Your task to perform on an android device: open app "LinkedIn" (install if not already installed) and enter user name: "dirt@inbox.com" and password: "receptionist" Image 0: 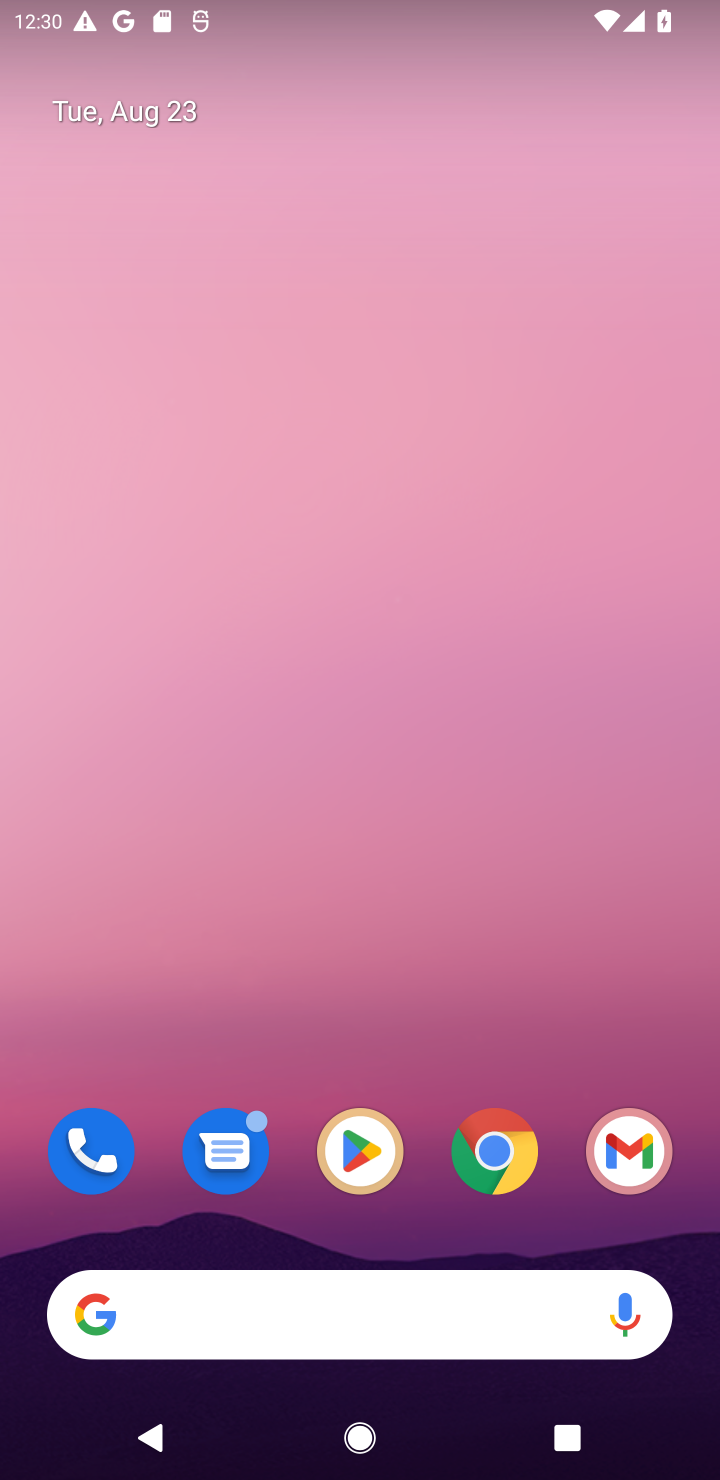
Step 0: click (367, 1150)
Your task to perform on an android device: open app "LinkedIn" (install if not already installed) and enter user name: "dirt@inbox.com" and password: "receptionist" Image 1: 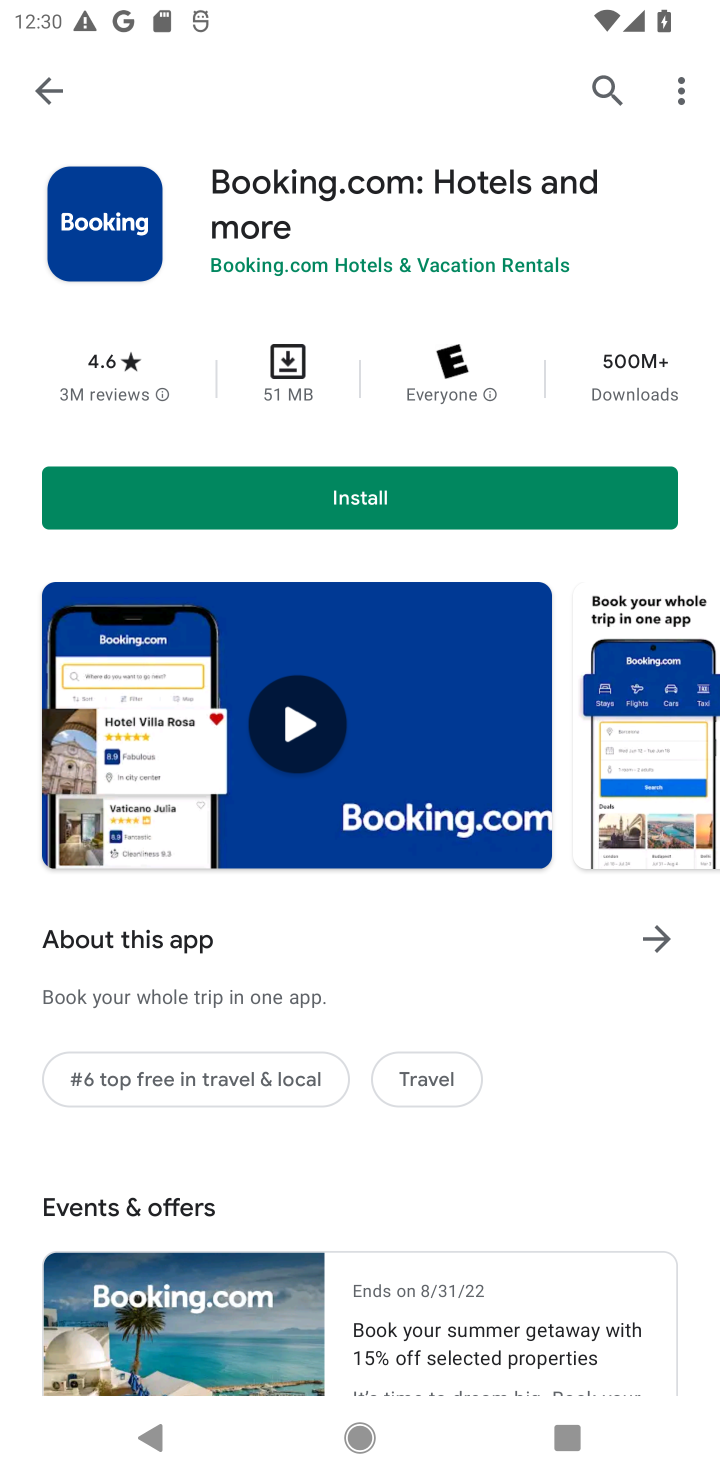
Step 1: click (598, 93)
Your task to perform on an android device: open app "LinkedIn" (install if not already installed) and enter user name: "dirt@inbox.com" and password: "receptionist" Image 2: 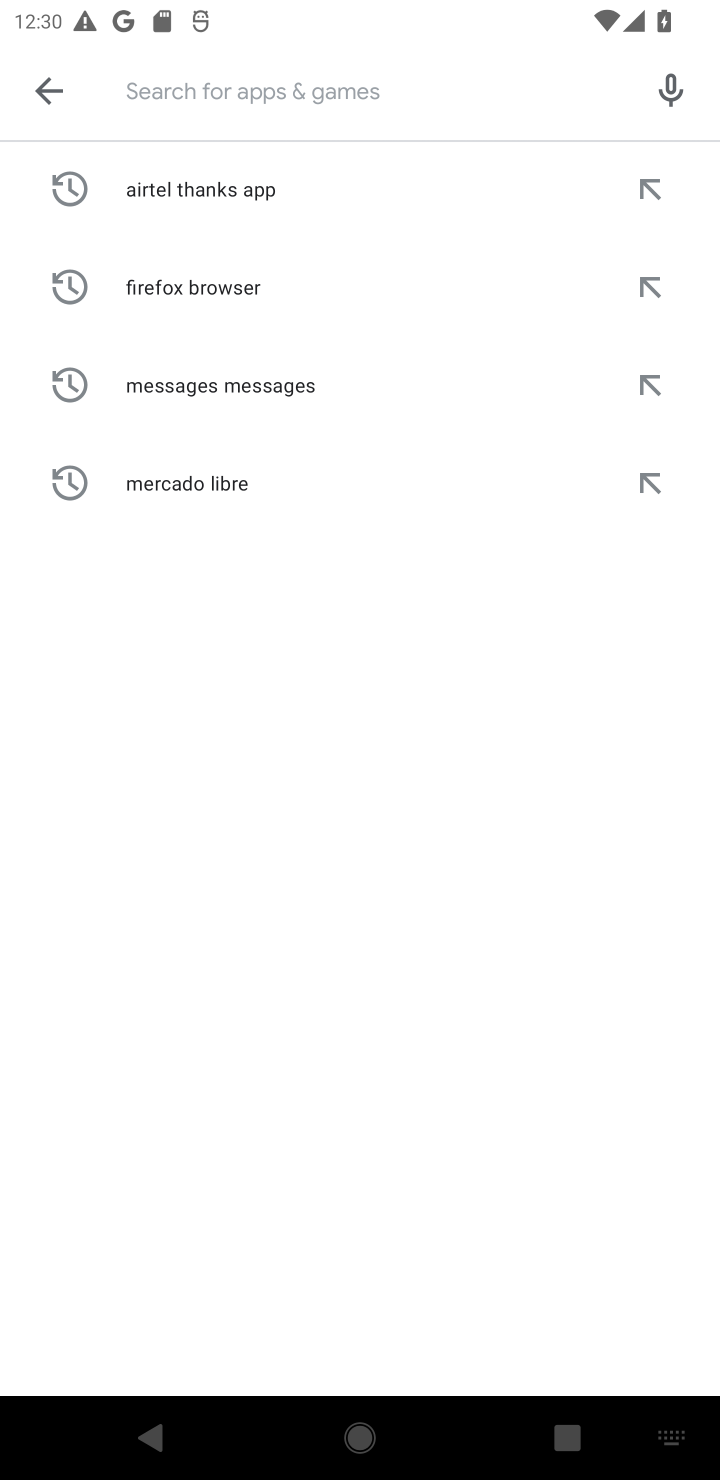
Step 2: type "LinkedIn"
Your task to perform on an android device: open app "LinkedIn" (install if not already installed) and enter user name: "dirt@inbox.com" and password: "receptionist" Image 3: 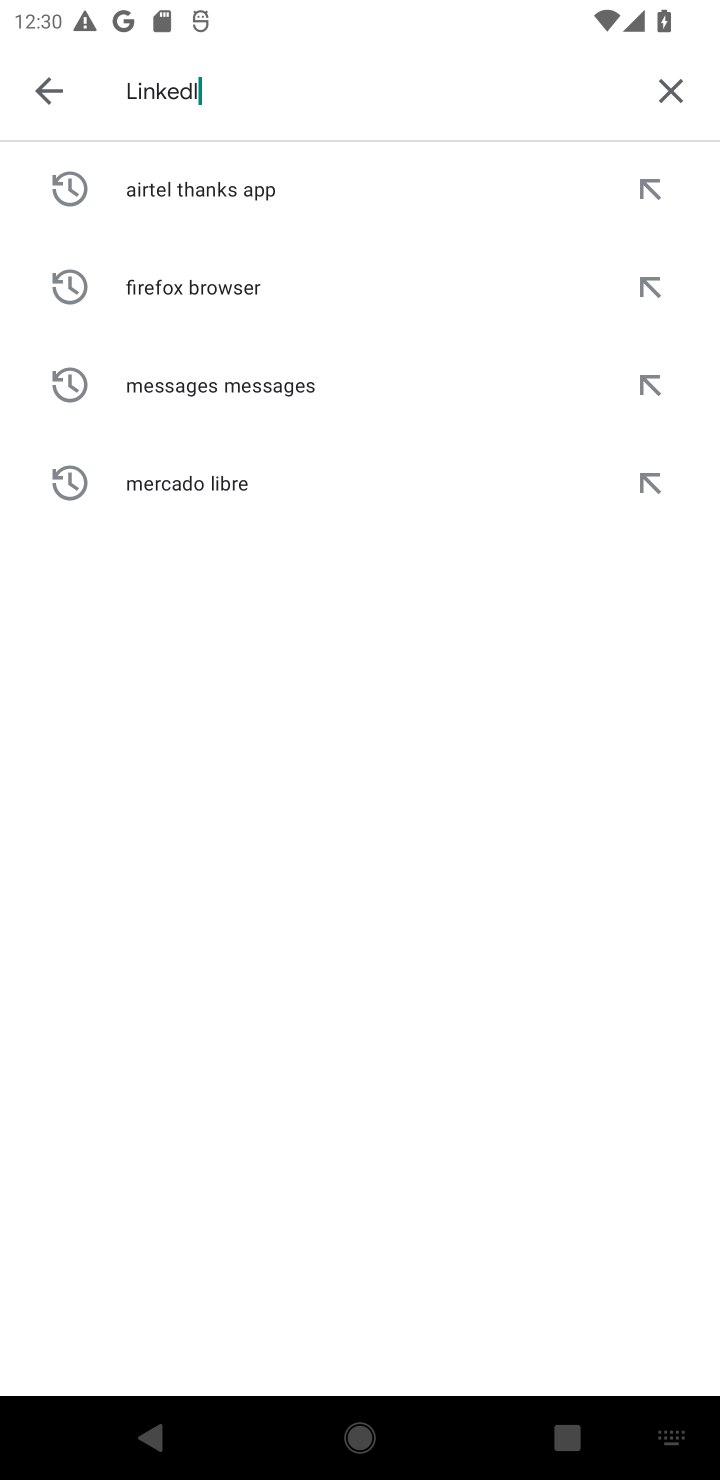
Step 3: type ""
Your task to perform on an android device: open app "LinkedIn" (install if not already installed) and enter user name: "dirt@inbox.com" and password: "receptionist" Image 4: 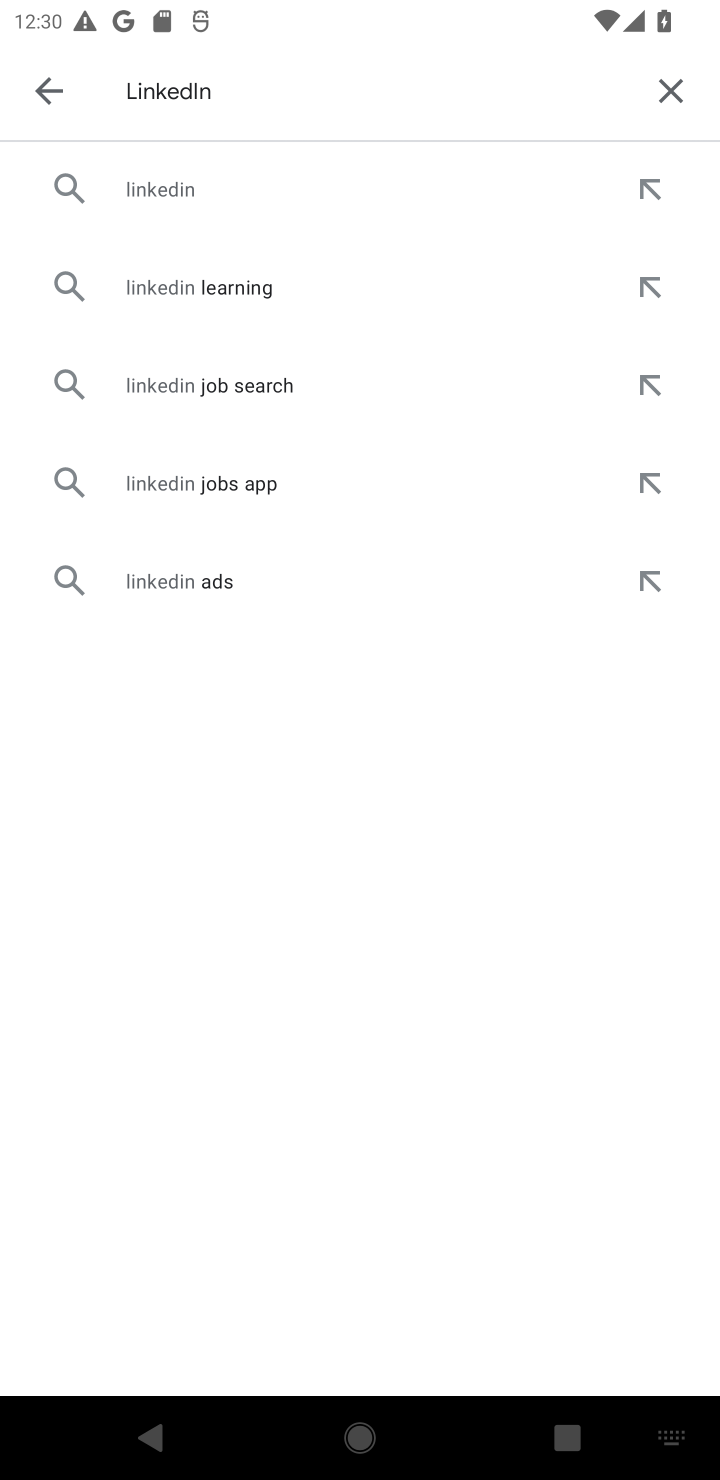
Step 4: click (214, 180)
Your task to perform on an android device: open app "LinkedIn" (install if not already installed) and enter user name: "dirt@inbox.com" and password: "receptionist" Image 5: 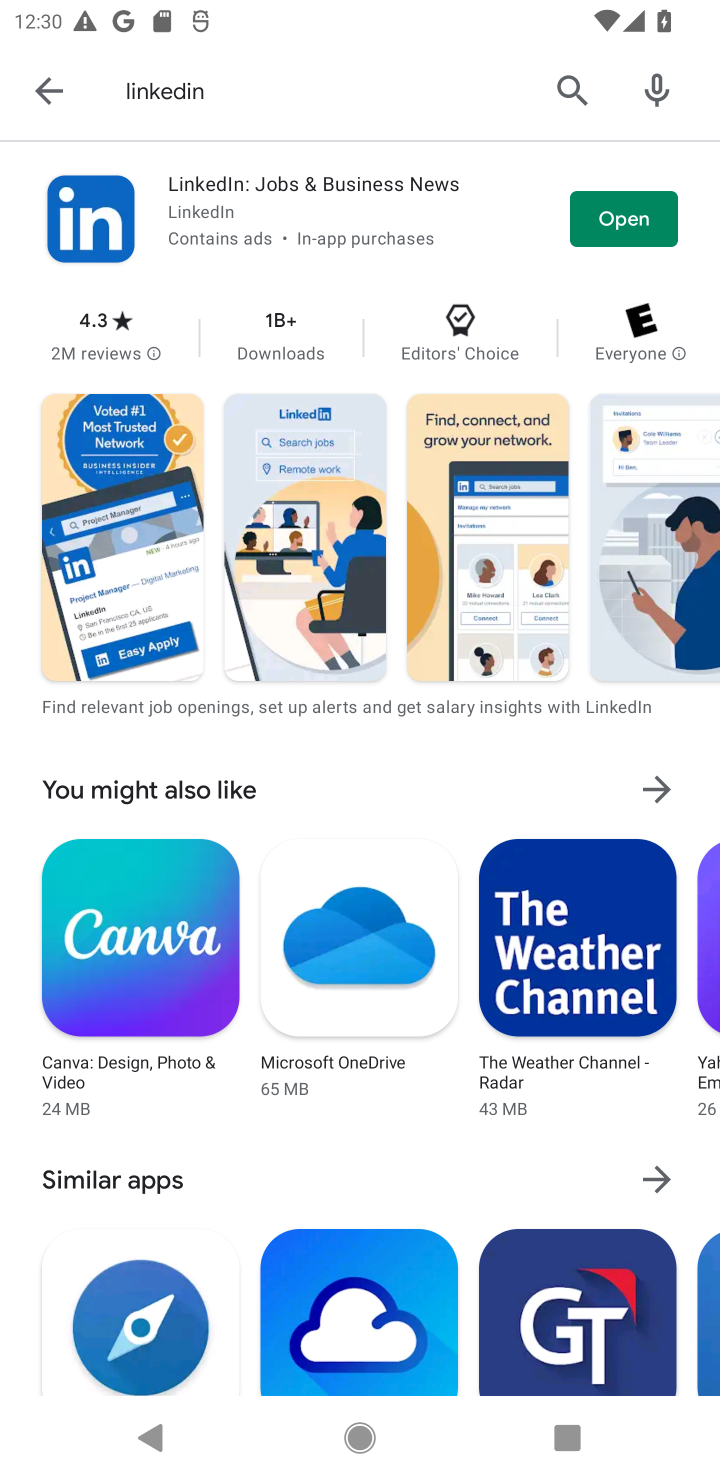
Step 5: click (630, 224)
Your task to perform on an android device: open app "LinkedIn" (install if not already installed) and enter user name: "dirt@inbox.com" and password: "receptionist" Image 6: 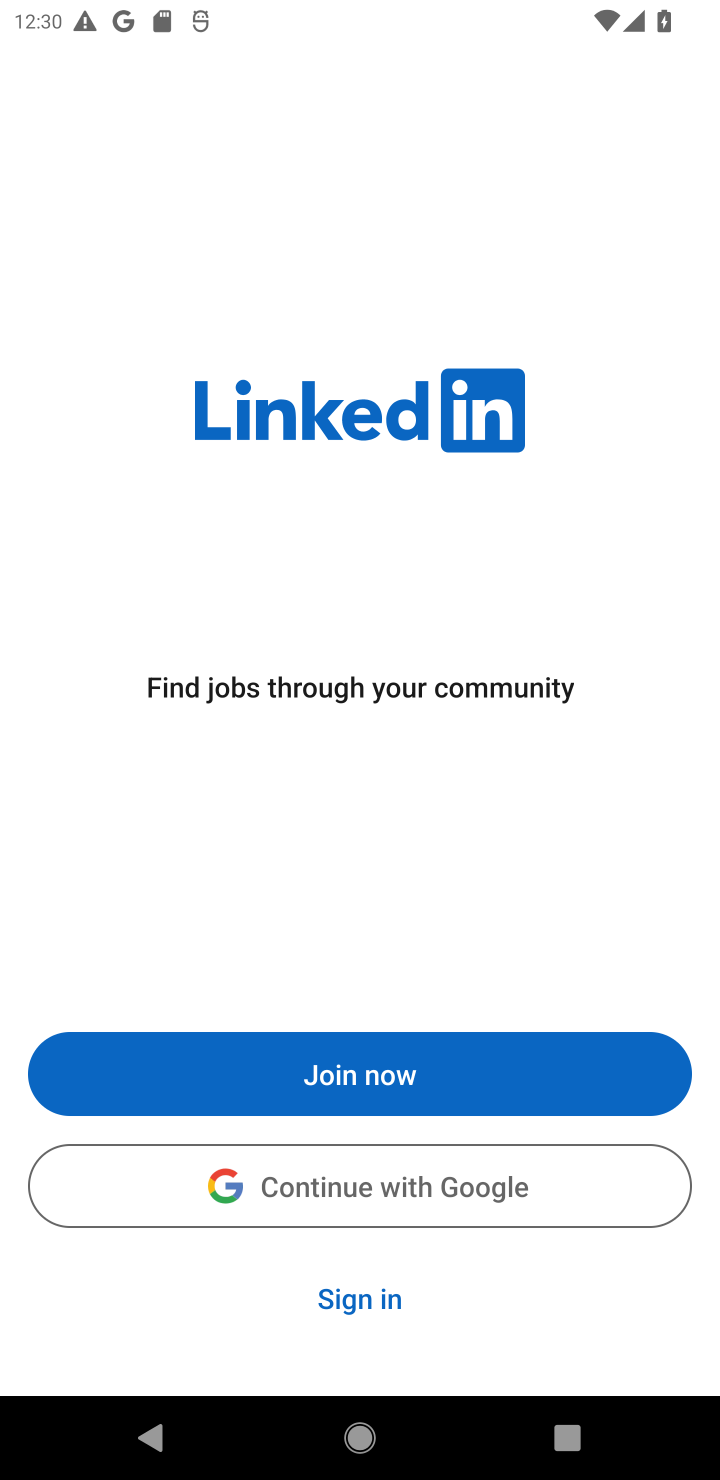
Step 6: task complete